Your task to perform on an android device: Open notification settings Image 0: 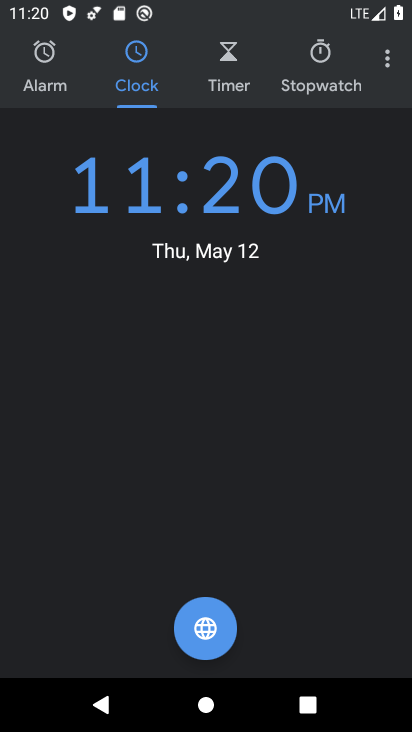
Step 0: press home button
Your task to perform on an android device: Open notification settings Image 1: 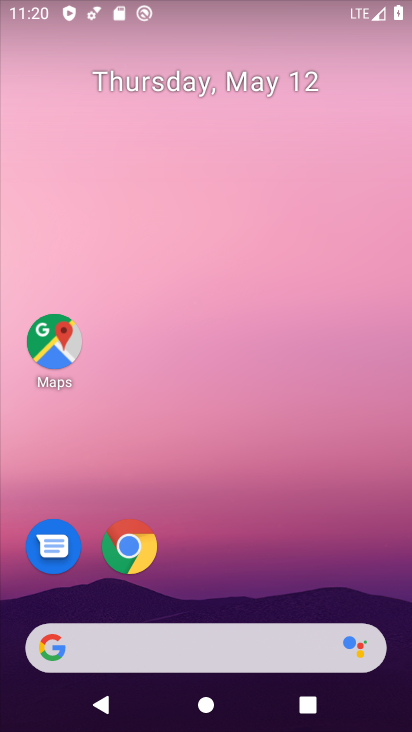
Step 1: drag from (196, 521) to (212, 237)
Your task to perform on an android device: Open notification settings Image 2: 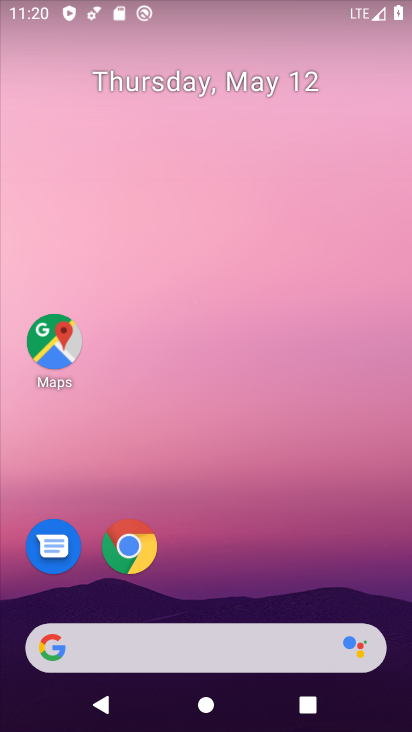
Step 2: drag from (291, 576) to (290, 53)
Your task to perform on an android device: Open notification settings Image 3: 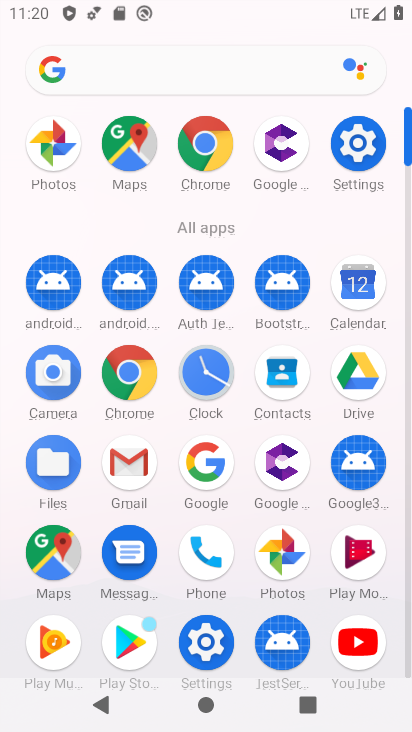
Step 3: click (366, 153)
Your task to perform on an android device: Open notification settings Image 4: 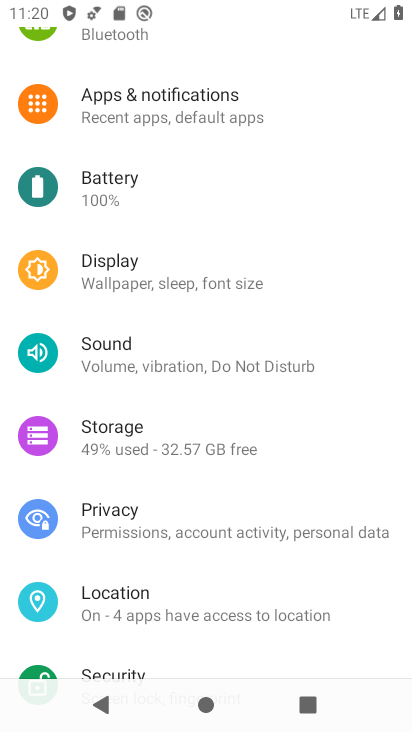
Step 4: click (186, 124)
Your task to perform on an android device: Open notification settings Image 5: 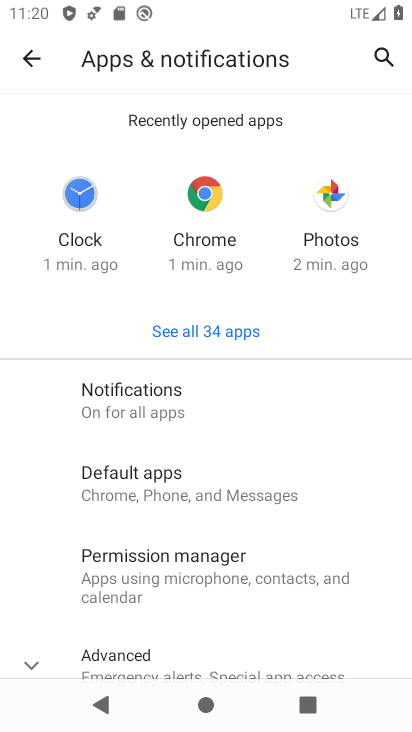
Step 5: task complete